Your task to perform on an android device: Go to calendar. Show me events next week Image 0: 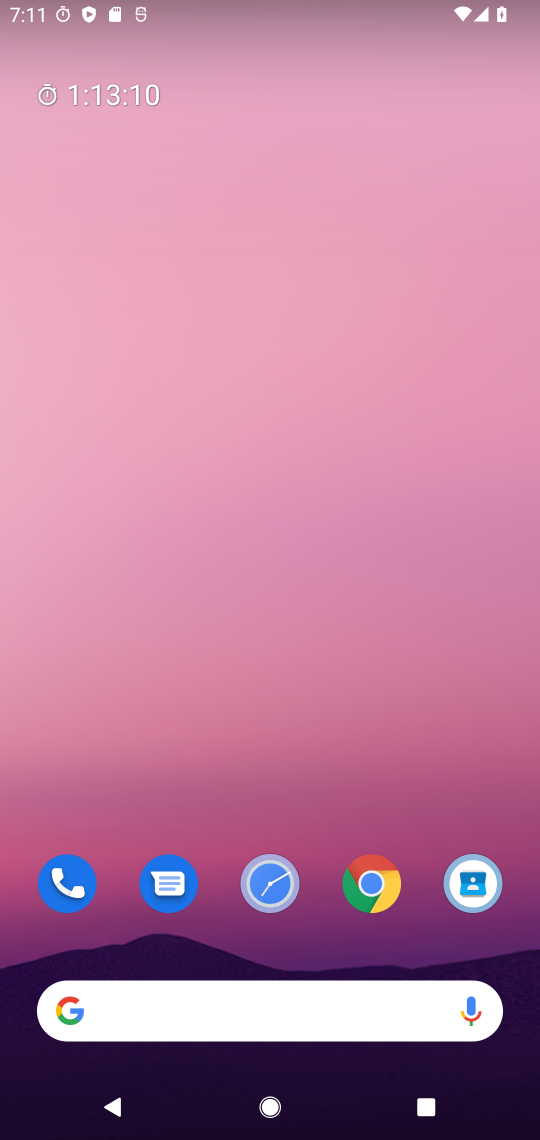
Step 0: drag from (367, 820) to (362, 282)
Your task to perform on an android device: Go to calendar. Show me events next week Image 1: 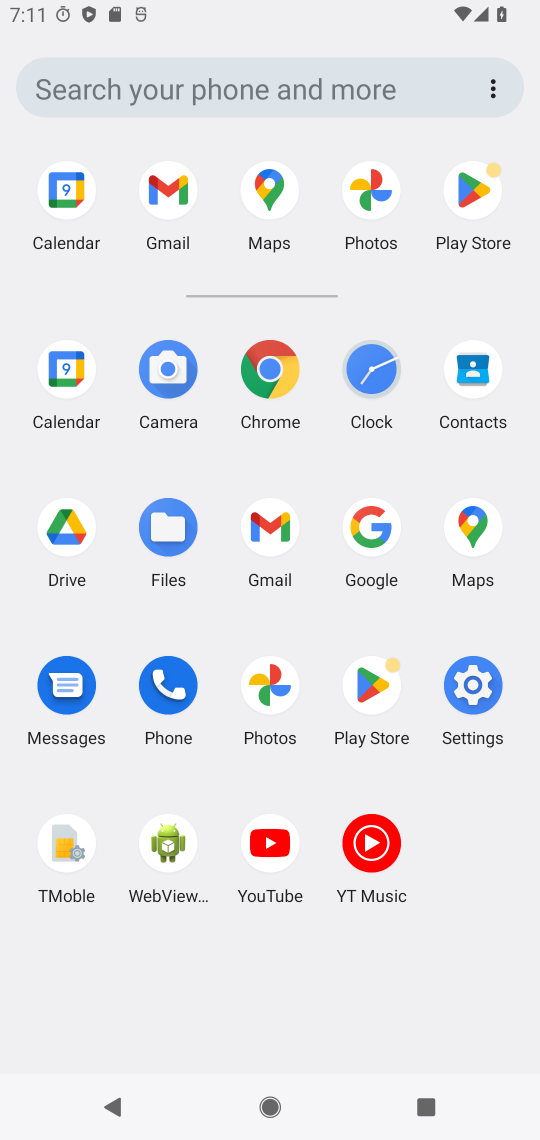
Step 1: click (77, 416)
Your task to perform on an android device: Go to calendar. Show me events next week Image 2: 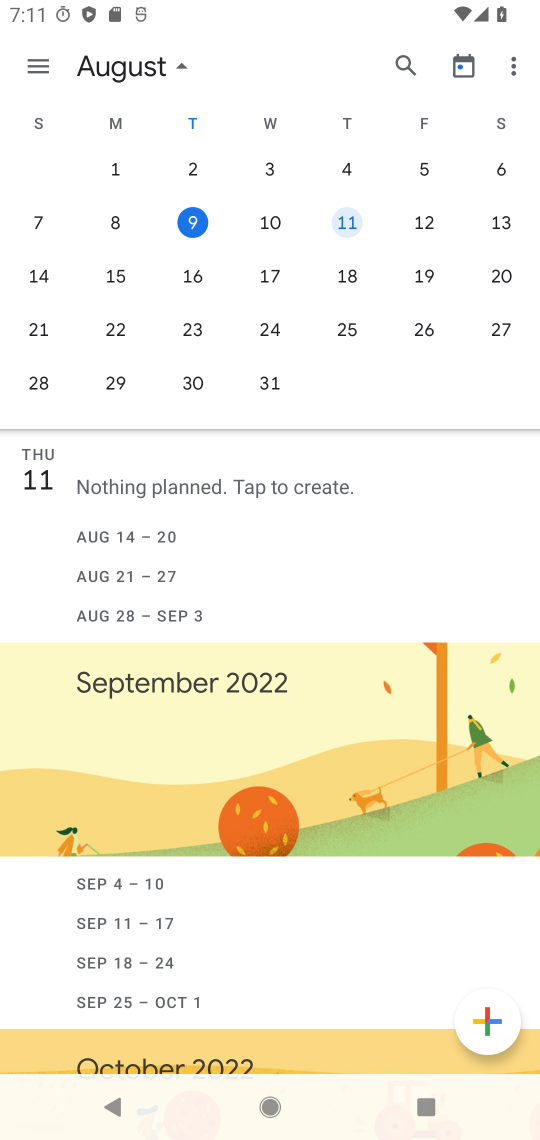
Step 2: click (25, 274)
Your task to perform on an android device: Go to calendar. Show me events next week Image 3: 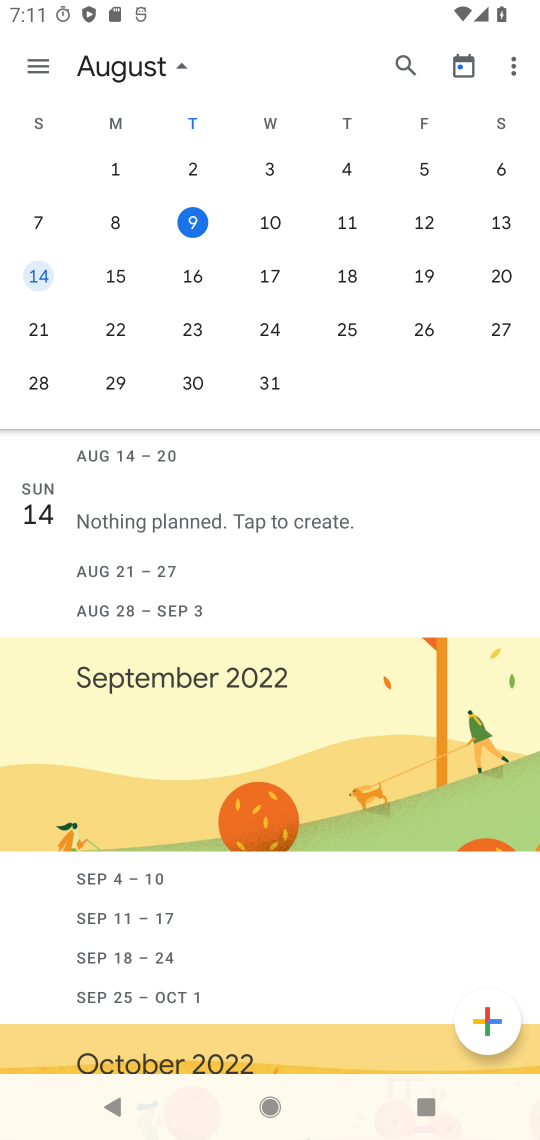
Step 3: task complete